Your task to perform on an android device: add a contact Image 0: 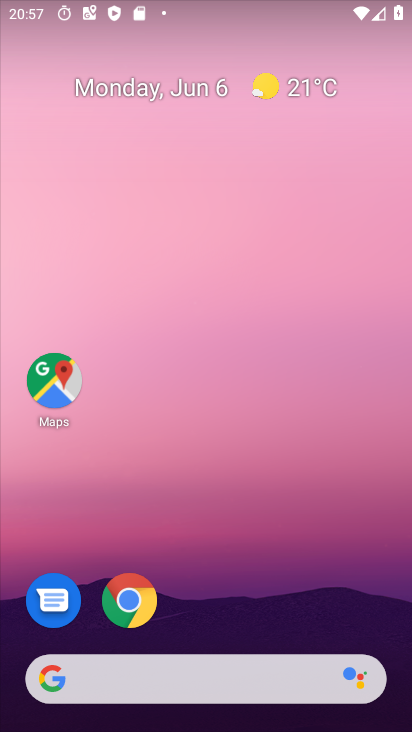
Step 0: drag from (357, 584) to (285, 26)
Your task to perform on an android device: add a contact Image 1: 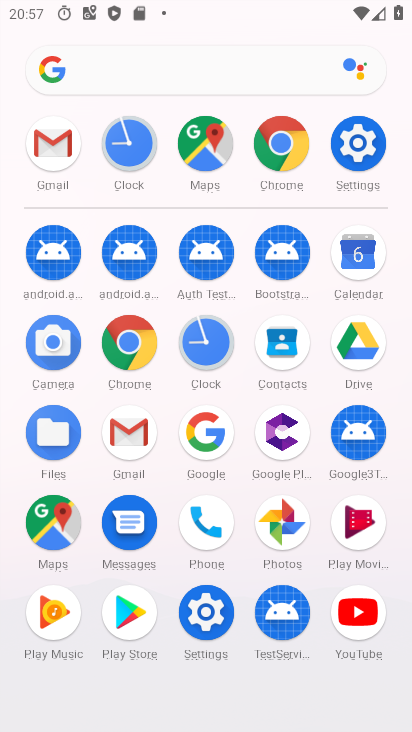
Step 1: click (281, 336)
Your task to perform on an android device: add a contact Image 2: 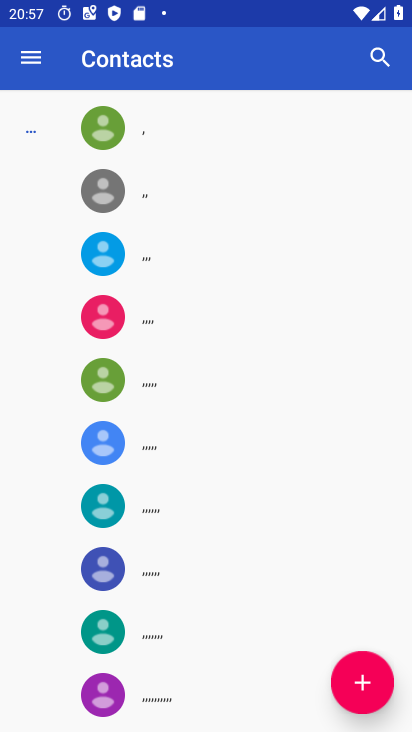
Step 2: click (366, 685)
Your task to perform on an android device: add a contact Image 3: 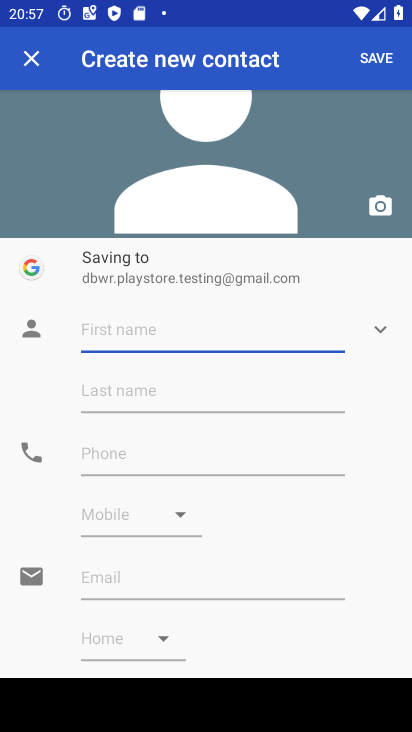
Step 3: type "weertt"
Your task to perform on an android device: add a contact Image 4: 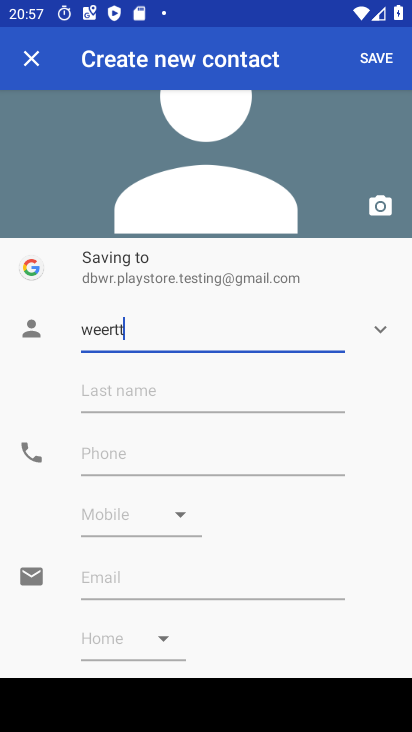
Step 4: type ""
Your task to perform on an android device: add a contact Image 5: 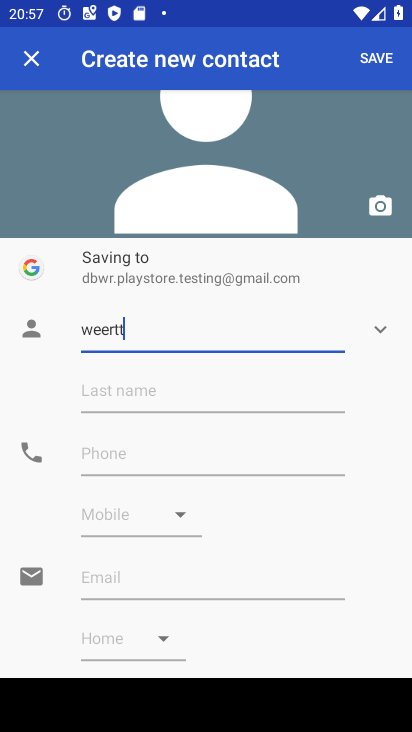
Step 5: click (159, 452)
Your task to perform on an android device: add a contact Image 6: 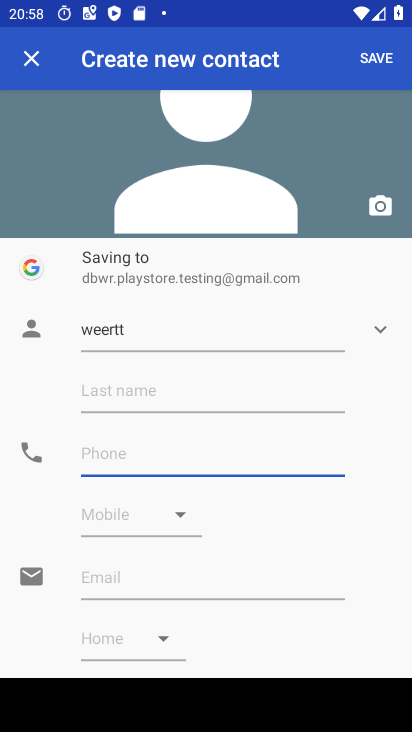
Step 6: type "987652345"
Your task to perform on an android device: add a contact Image 7: 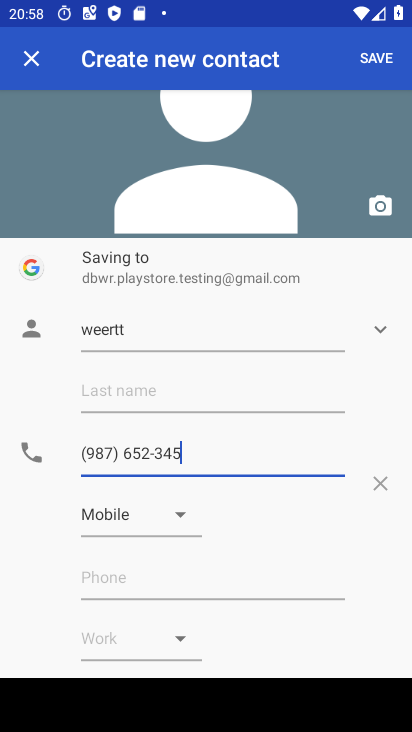
Step 7: type ""
Your task to perform on an android device: add a contact Image 8: 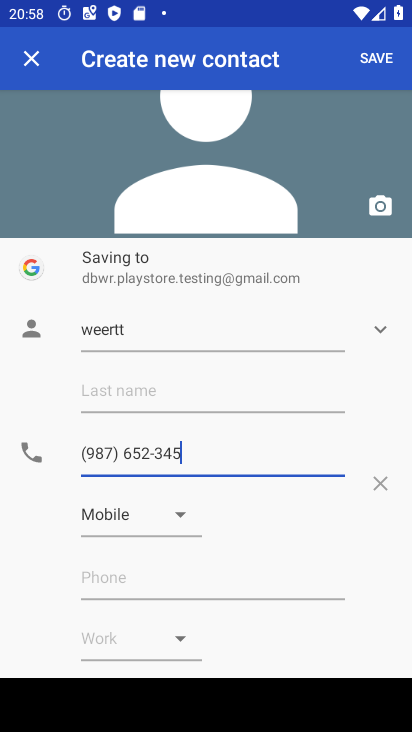
Step 8: click (372, 50)
Your task to perform on an android device: add a contact Image 9: 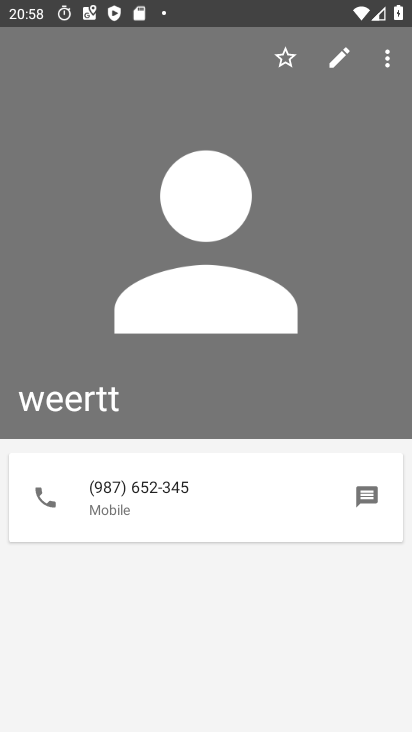
Step 9: task complete